Your task to perform on an android device: Search for hotels in Chicago Image 0: 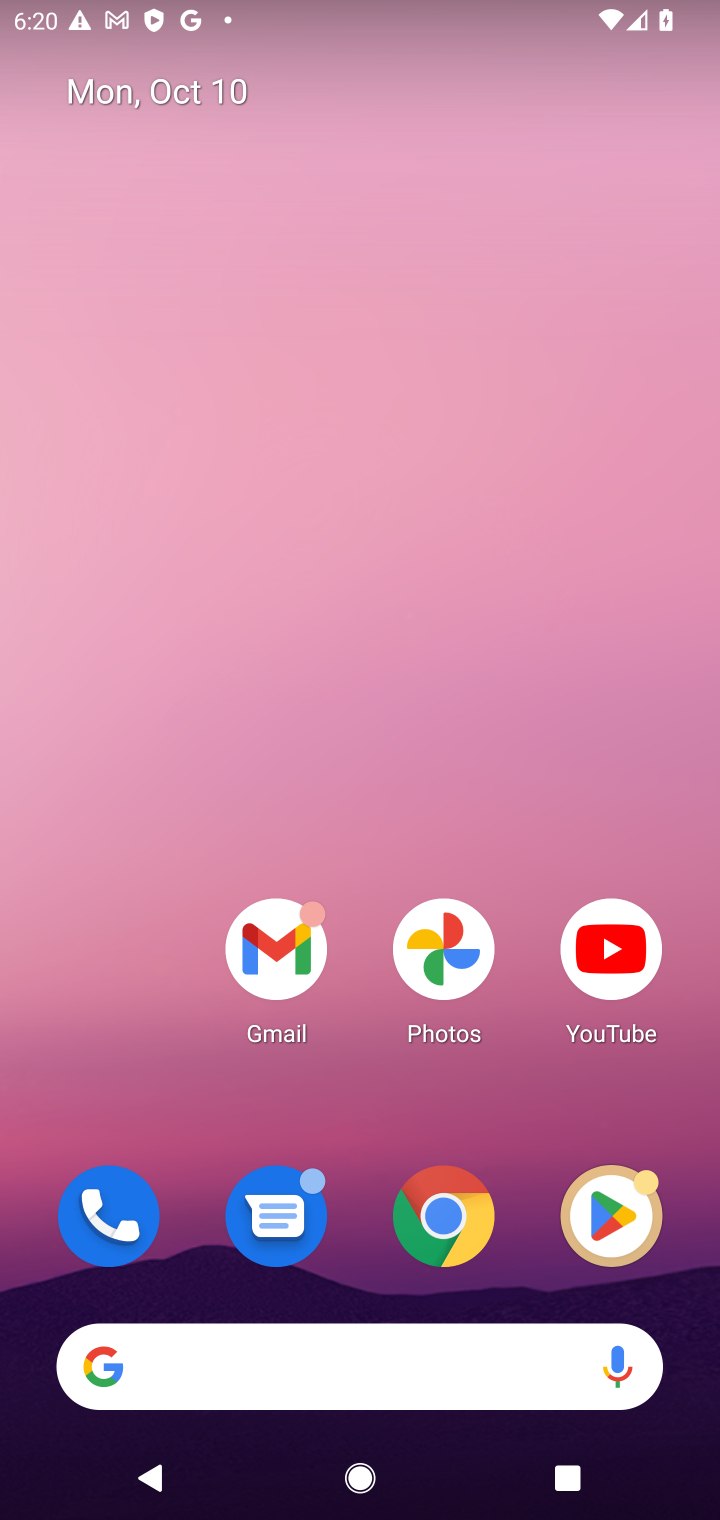
Step 0: drag from (351, 1081) to (437, 93)
Your task to perform on an android device: Search for hotels in Chicago Image 1: 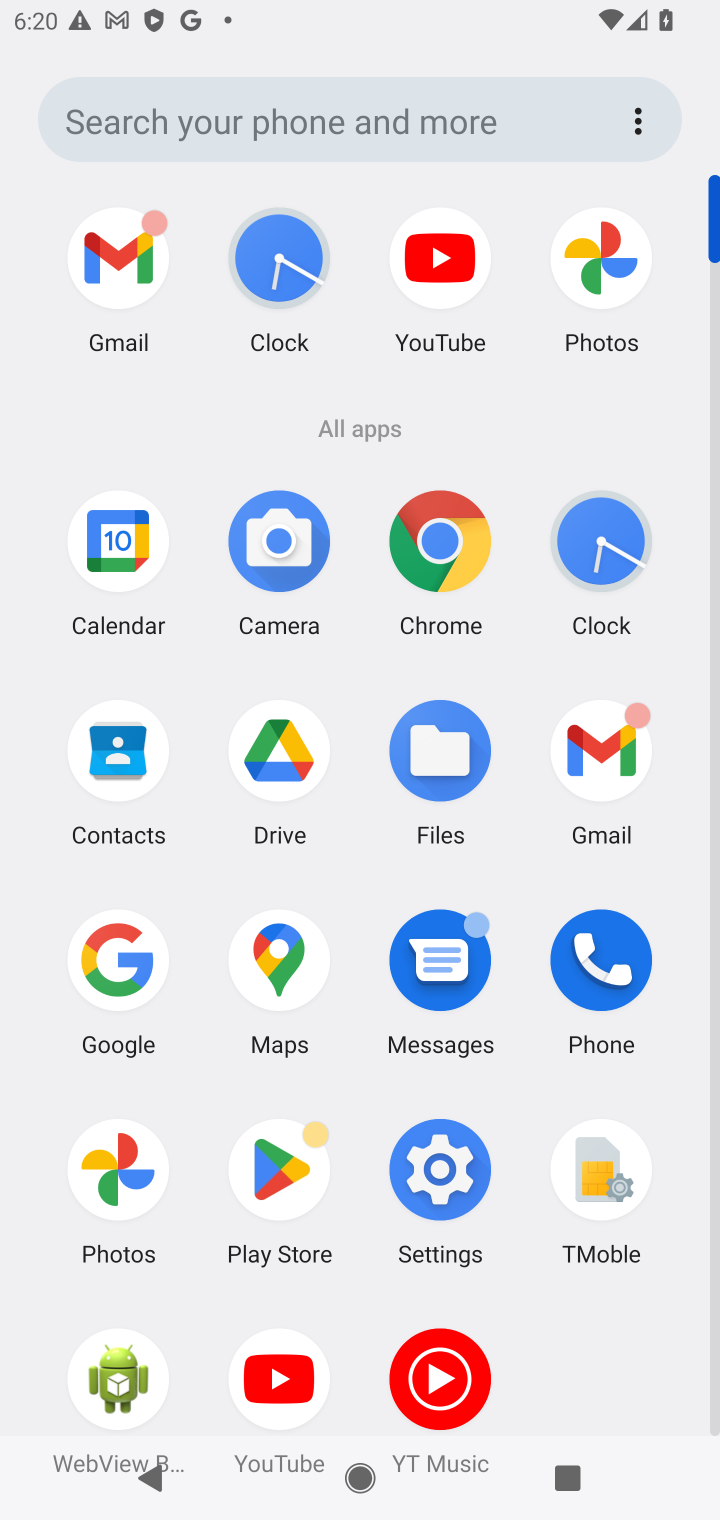
Step 1: click (108, 959)
Your task to perform on an android device: Search for hotels in Chicago Image 2: 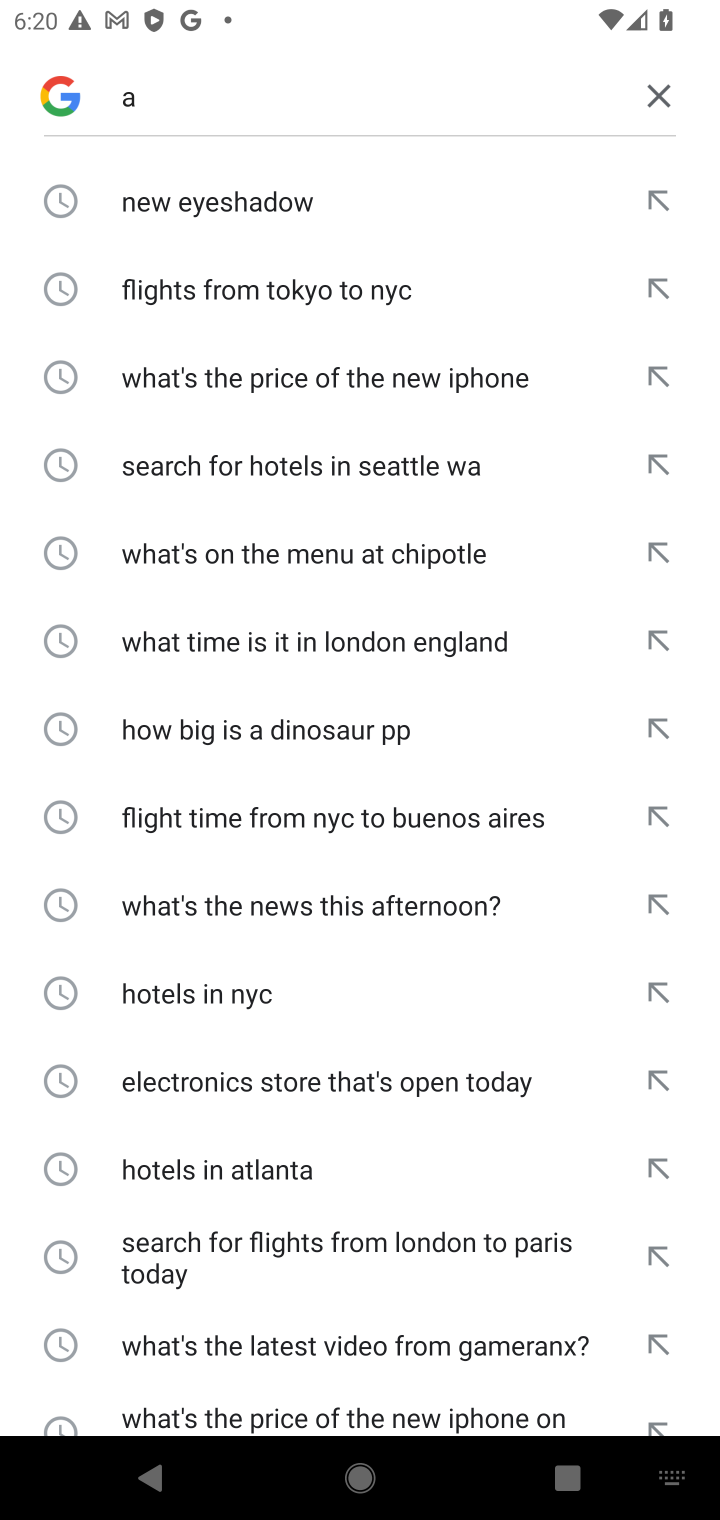
Step 2: click (646, 89)
Your task to perform on an android device: Search for hotels in Chicago Image 3: 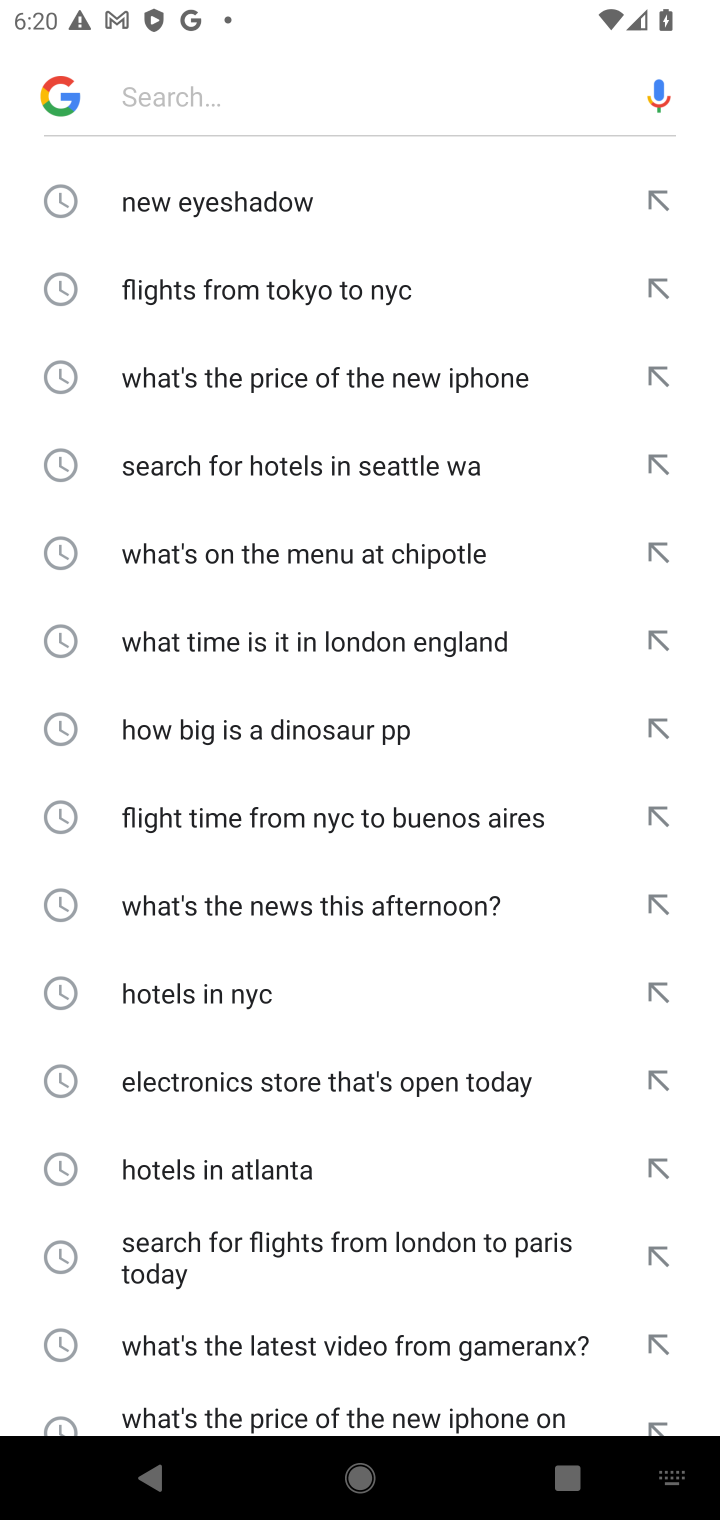
Step 3: type "Search for hotels in Chicago"
Your task to perform on an android device: Search for hotels in Chicago Image 4: 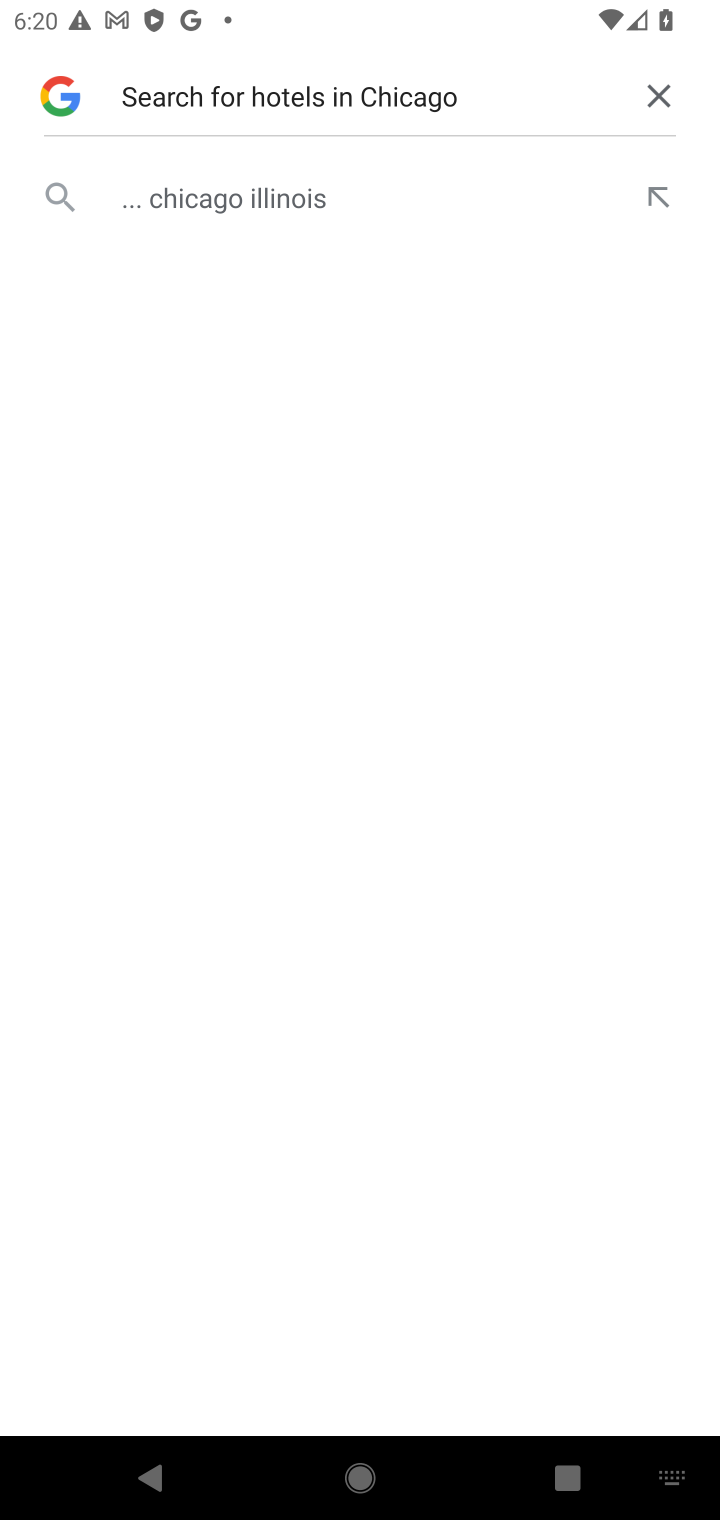
Step 4: click (250, 197)
Your task to perform on an android device: Search for hotels in Chicago Image 5: 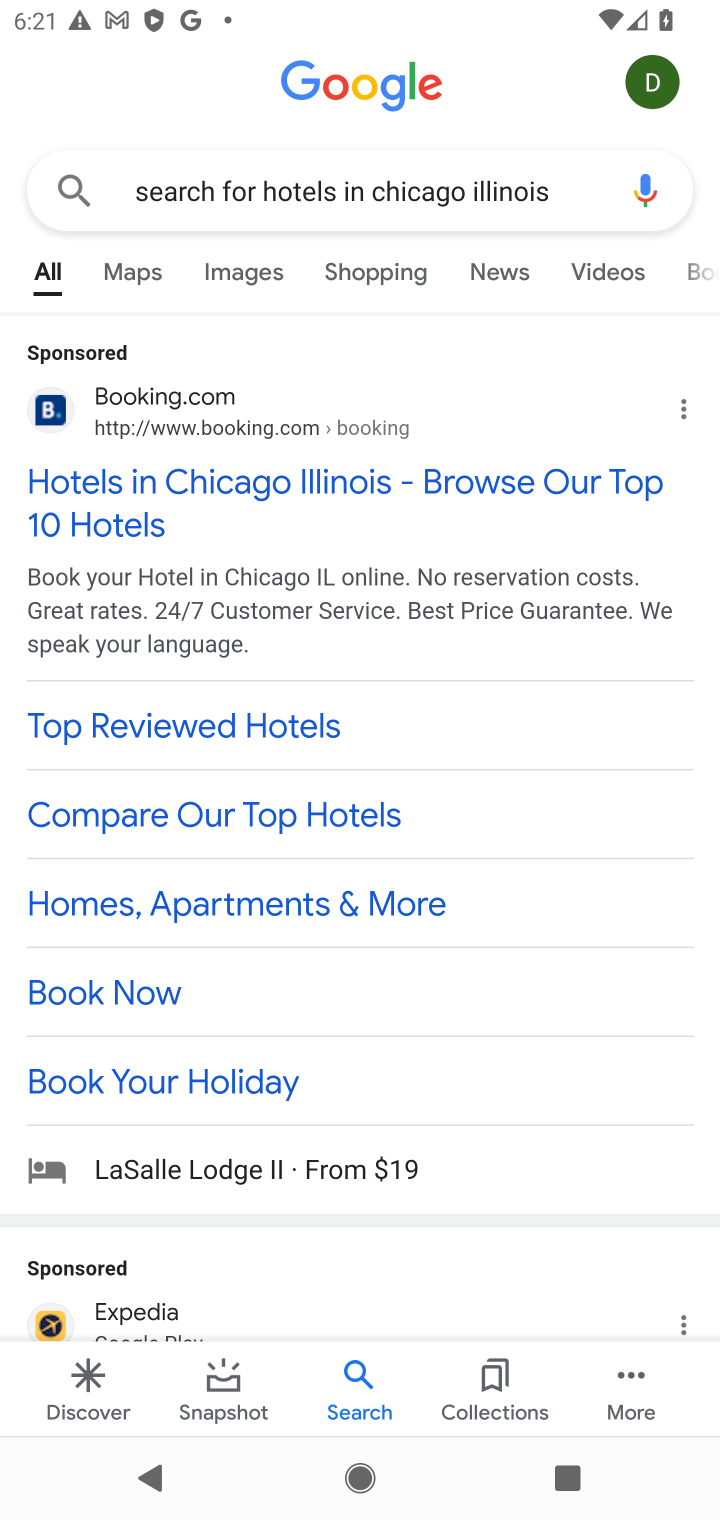
Step 5: click (302, 489)
Your task to perform on an android device: Search for hotels in Chicago Image 6: 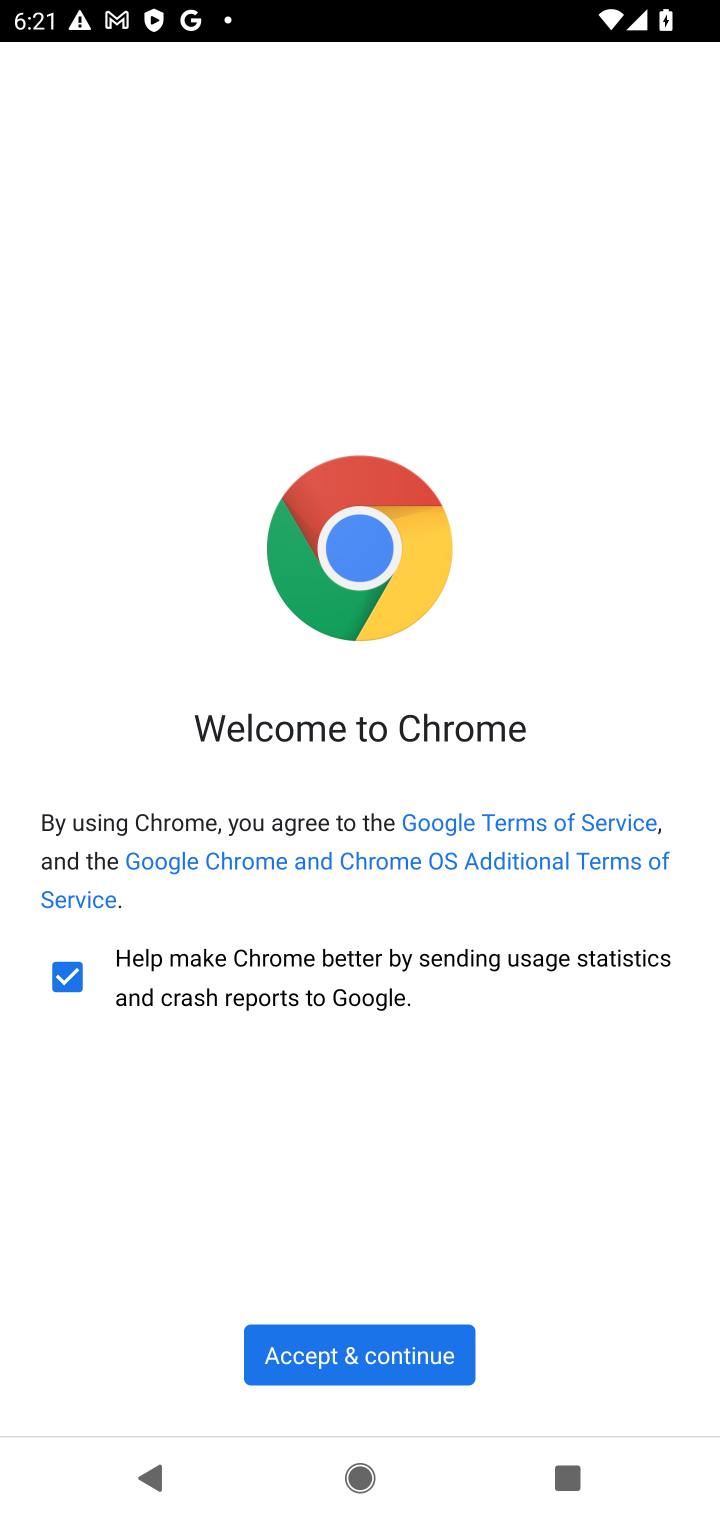
Step 6: click (404, 1348)
Your task to perform on an android device: Search for hotels in Chicago Image 7: 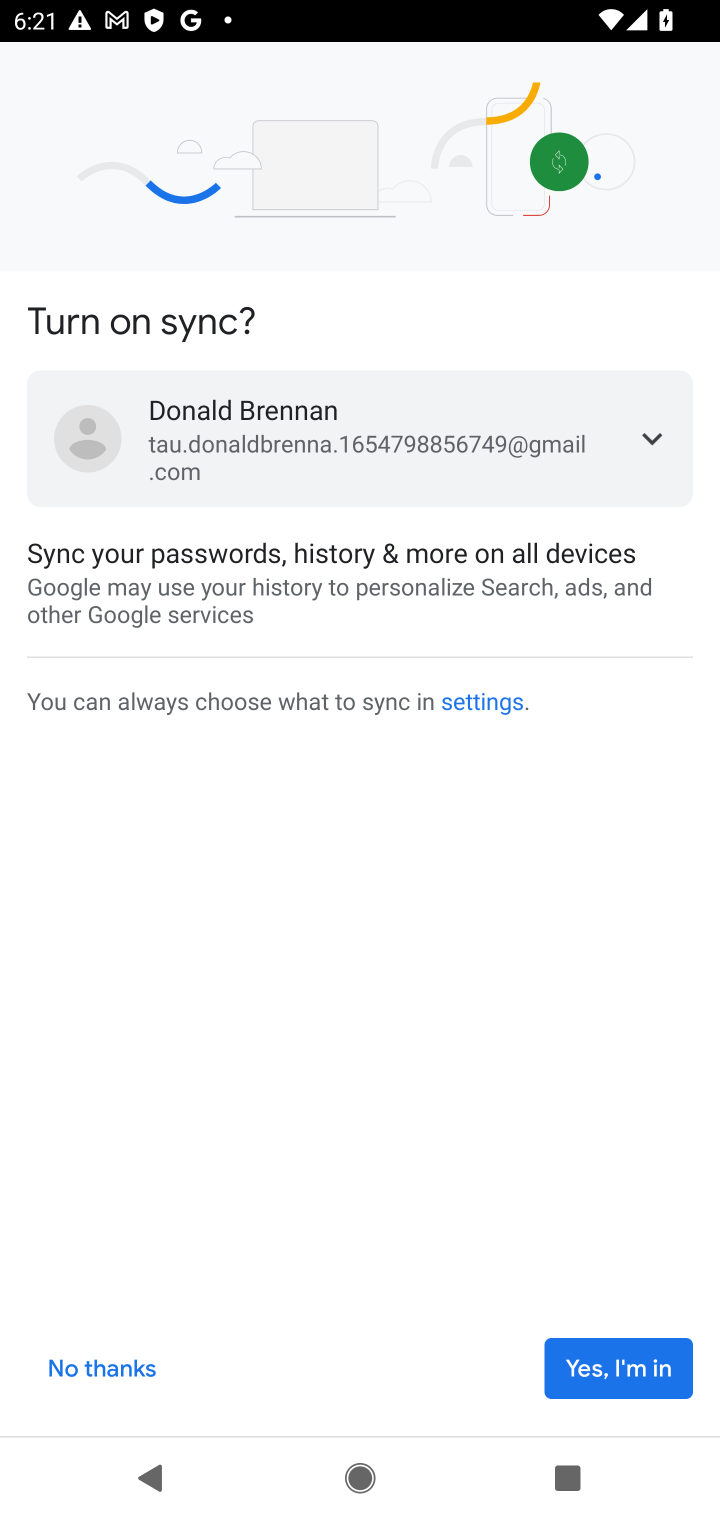
Step 7: click (595, 1377)
Your task to perform on an android device: Search for hotels in Chicago Image 8: 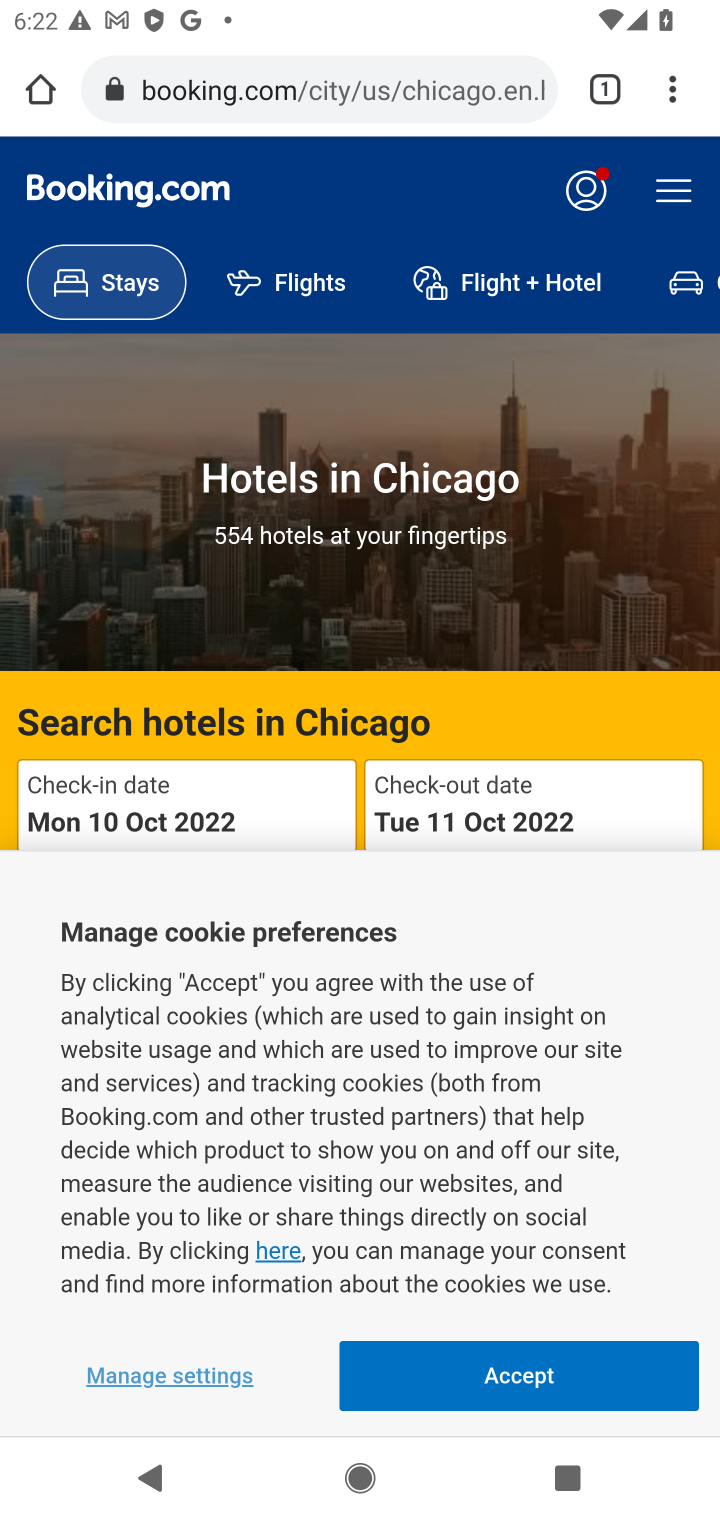
Step 8: task complete